Your task to perform on an android device: Is it going to rain tomorrow? Image 0: 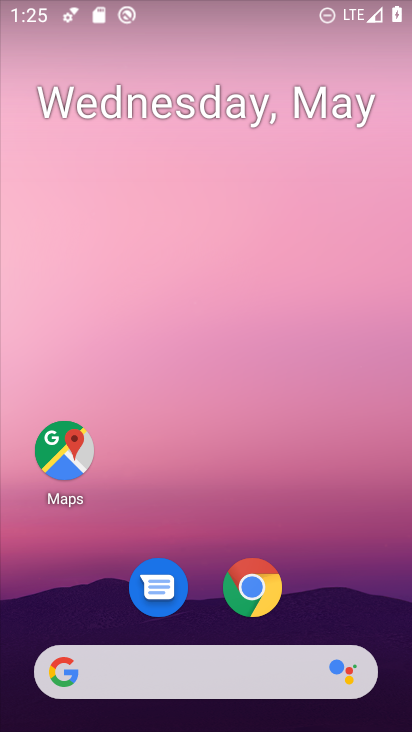
Step 0: drag from (306, 614) to (290, 245)
Your task to perform on an android device: Is it going to rain tomorrow? Image 1: 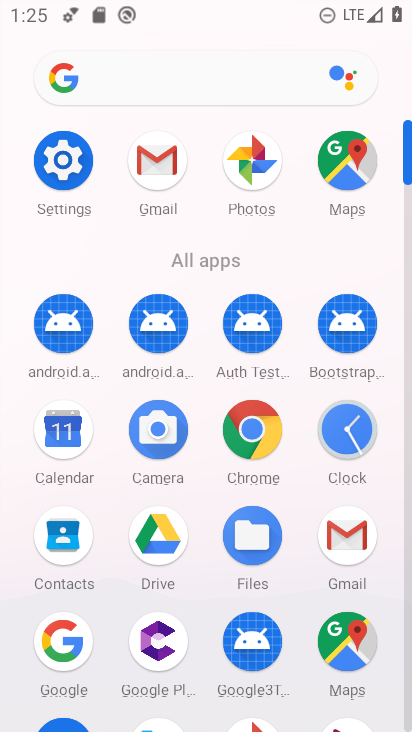
Step 1: click (44, 672)
Your task to perform on an android device: Is it going to rain tomorrow? Image 2: 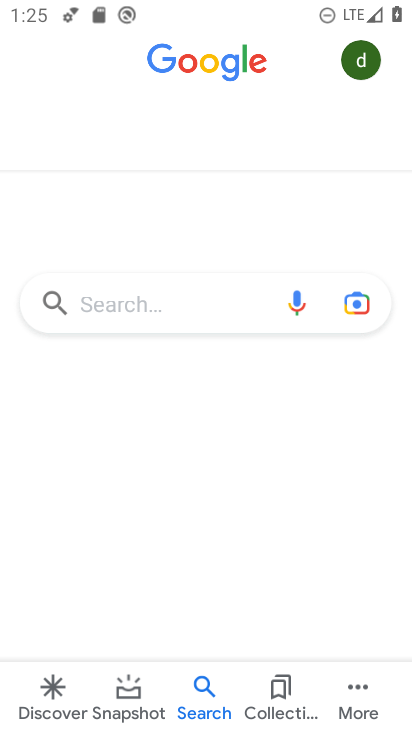
Step 2: click (180, 308)
Your task to perform on an android device: Is it going to rain tomorrow? Image 3: 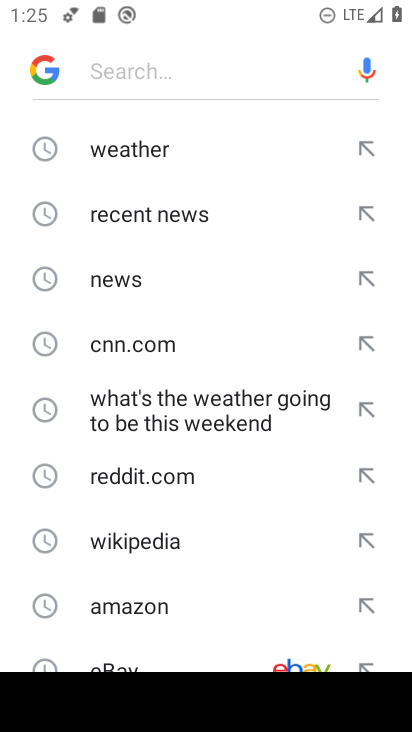
Step 3: click (134, 168)
Your task to perform on an android device: Is it going to rain tomorrow? Image 4: 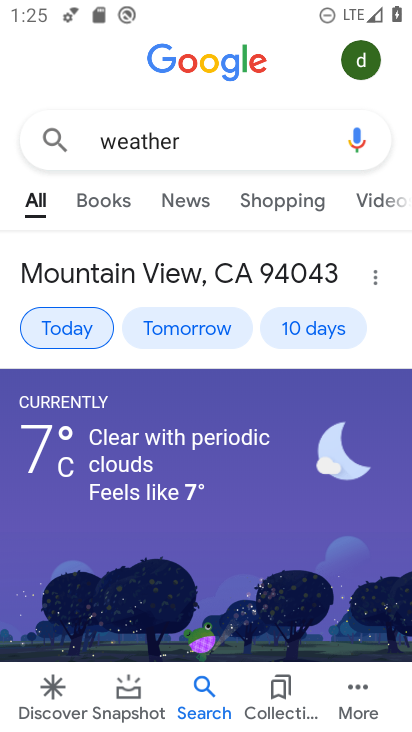
Step 4: drag from (248, 519) to (256, 220)
Your task to perform on an android device: Is it going to rain tomorrow? Image 5: 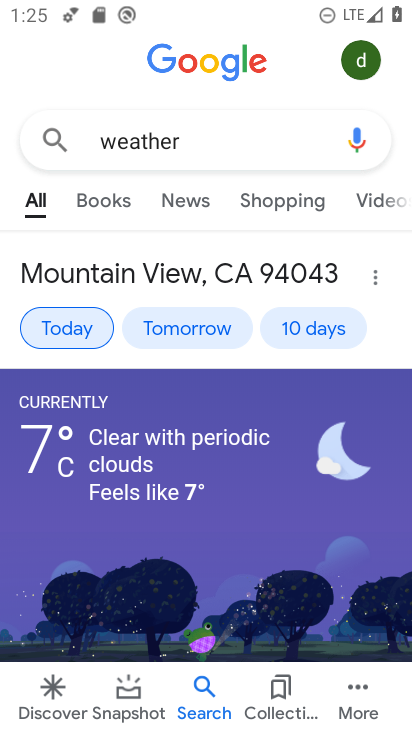
Step 5: drag from (146, 632) to (164, 37)
Your task to perform on an android device: Is it going to rain tomorrow? Image 6: 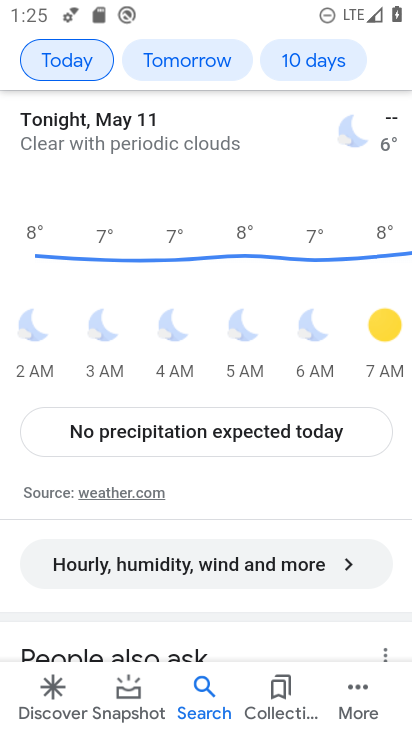
Step 6: click (163, 66)
Your task to perform on an android device: Is it going to rain tomorrow? Image 7: 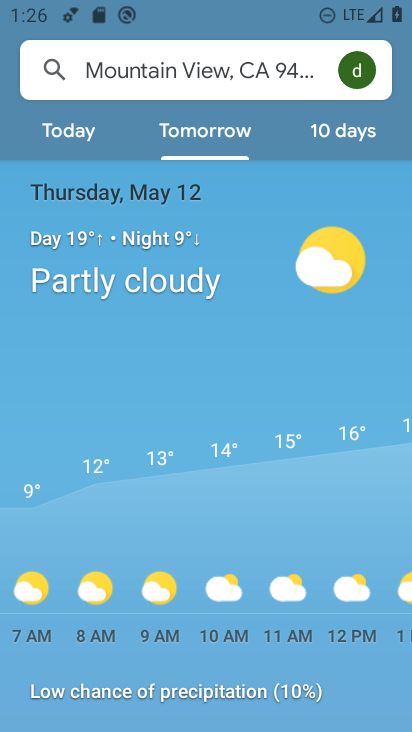
Step 7: task complete